Your task to perform on an android device: add a label to a message in the gmail app Image 0: 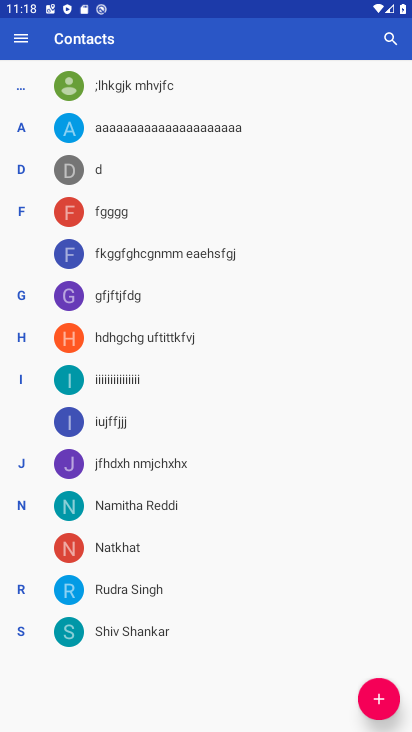
Step 0: press home button
Your task to perform on an android device: add a label to a message in the gmail app Image 1: 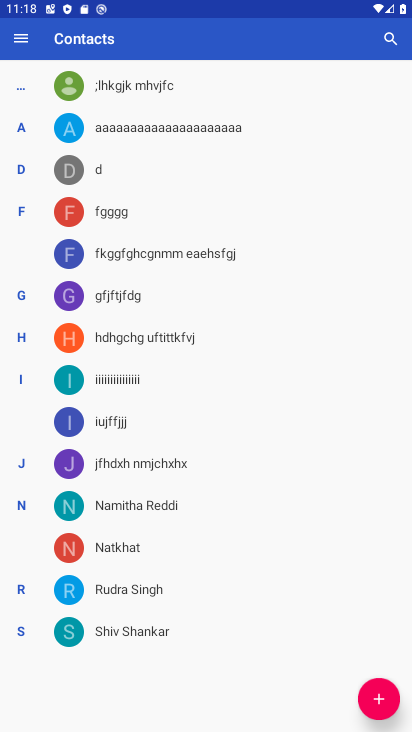
Step 1: press home button
Your task to perform on an android device: add a label to a message in the gmail app Image 2: 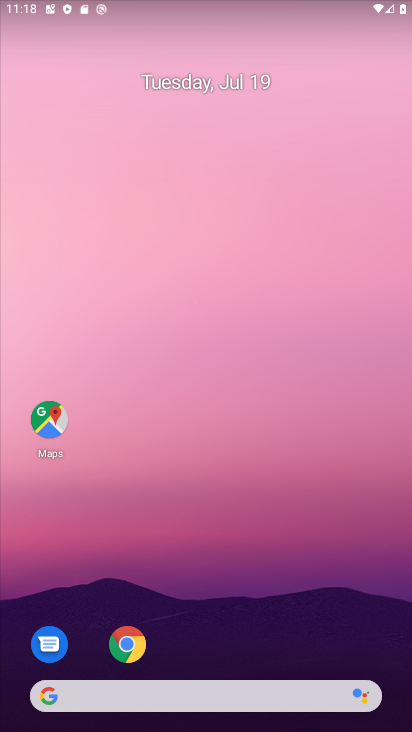
Step 2: drag from (243, 635) to (261, 107)
Your task to perform on an android device: add a label to a message in the gmail app Image 3: 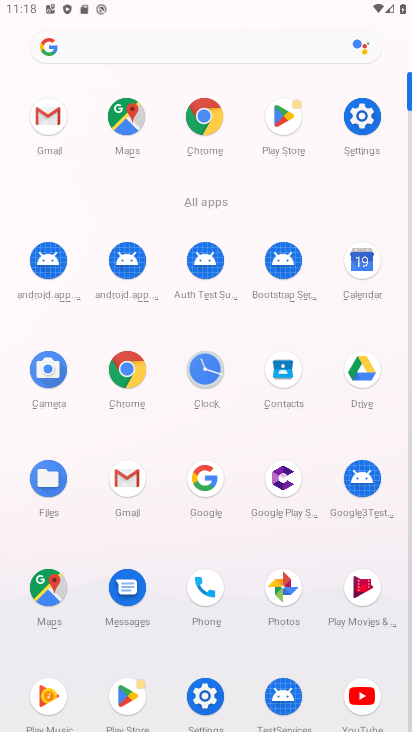
Step 3: click (127, 478)
Your task to perform on an android device: add a label to a message in the gmail app Image 4: 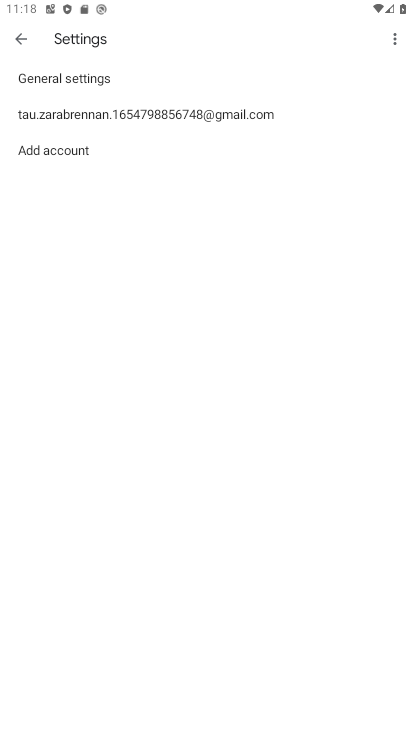
Step 4: click (23, 31)
Your task to perform on an android device: add a label to a message in the gmail app Image 5: 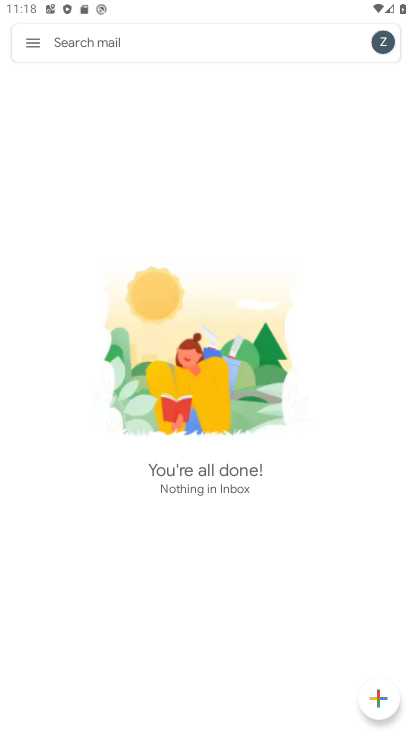
Step 5: task complete